Your task to perform on an android device: toggle data saver in the chrome app Image 0: 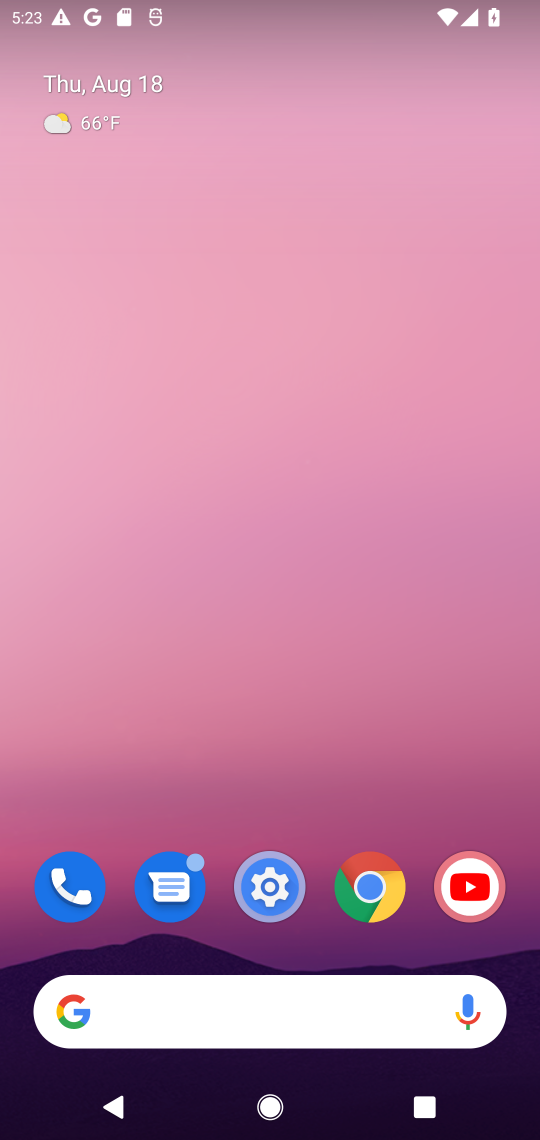
Step 0: task complete